Your task to perform on an android device: turn on javascript in the chrome app Image 0: 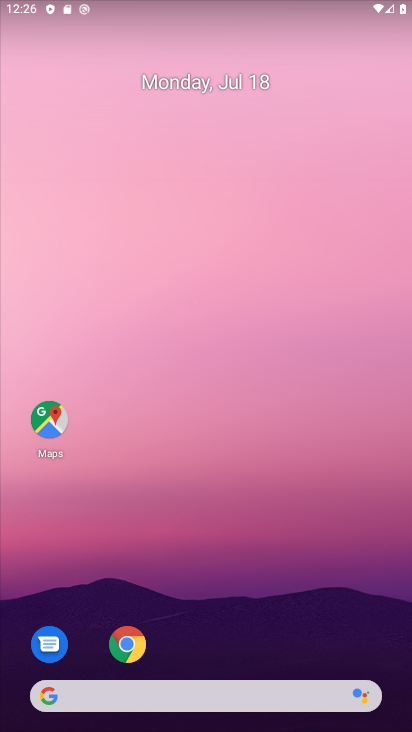
Step 0: click (109, 662)
Your task to perform on an android device: turn on javascript in the chrome app Image 1: 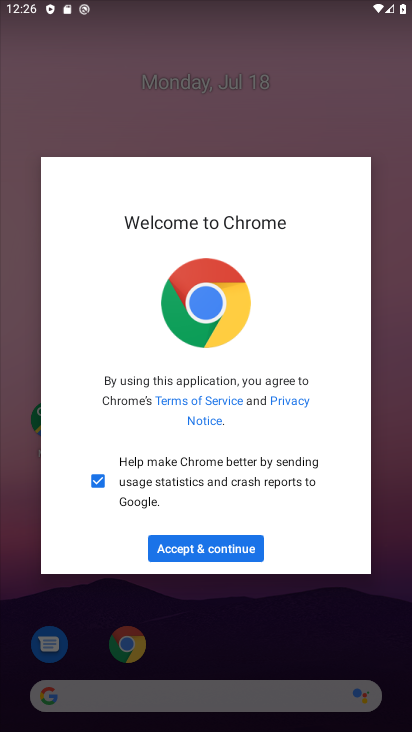
Step 1: click (192, 555)
Your task to perform on an android device: turn on javascript in the chrome app Image 2: 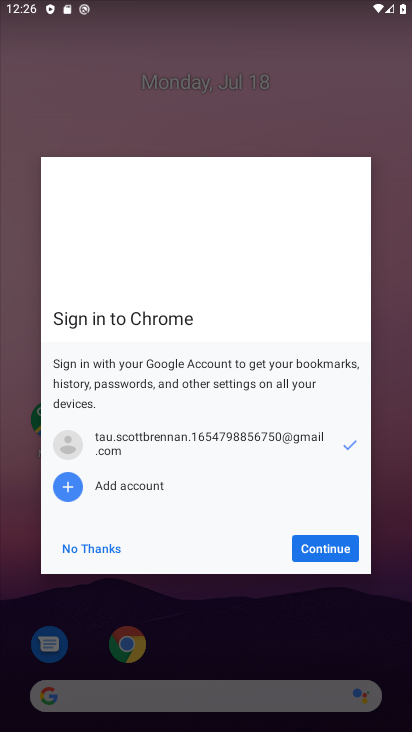
Step 2: click (312, 547)
Your task to perform on an android device: turn on javascript in the chrome app Image 3: 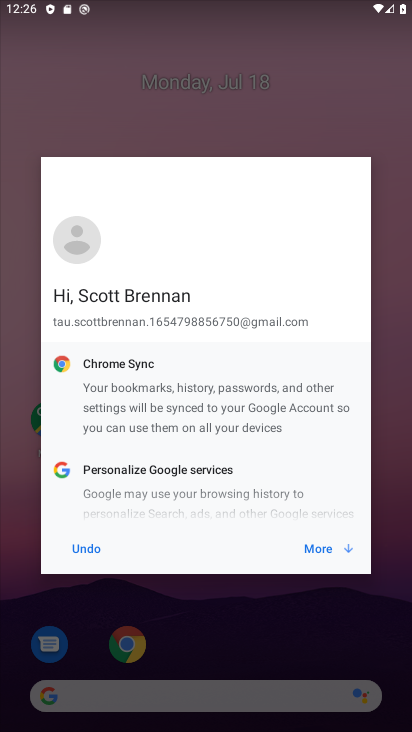
Step 3: click (312, 547)
Your task to perform on an android device: turn on javascript in the chrome app Image 4: 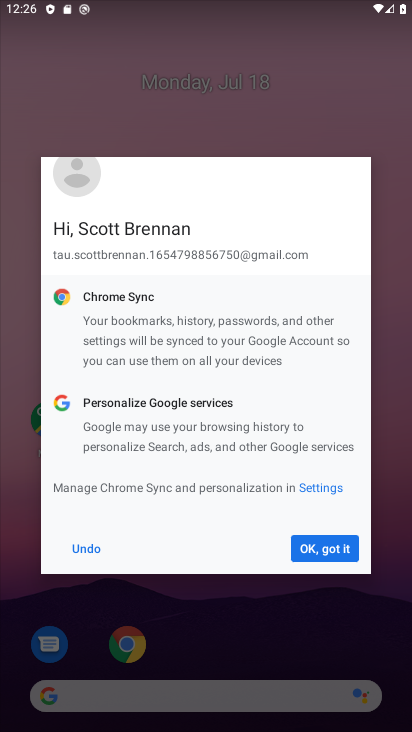
Step 4: click (312, 547)
Your task to perform on an android device: turn on javascript in the chrome app Image 5: 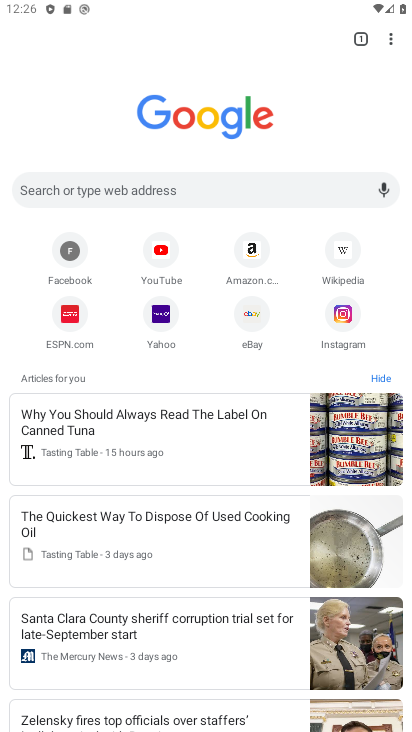
Step 5: drag from (391, 38) to (284, 320)
Your task to perform on an android device: turn on javascript in the chrome app Image 6: 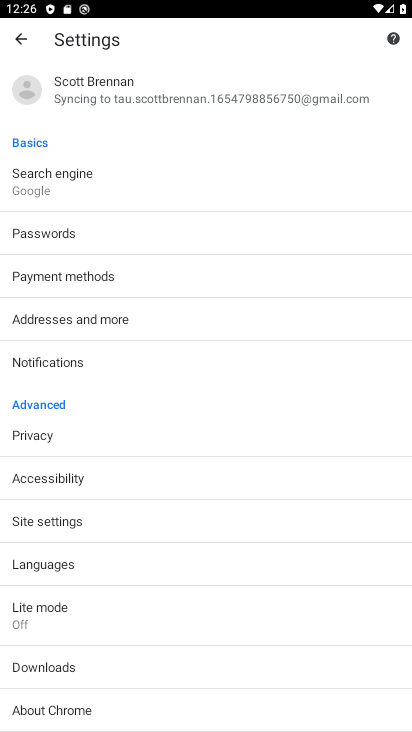
Step 6: drag from (74, 665) to (70, 526)
Your task to perform on an android device: turn on javascript in the chrome app Image 7: 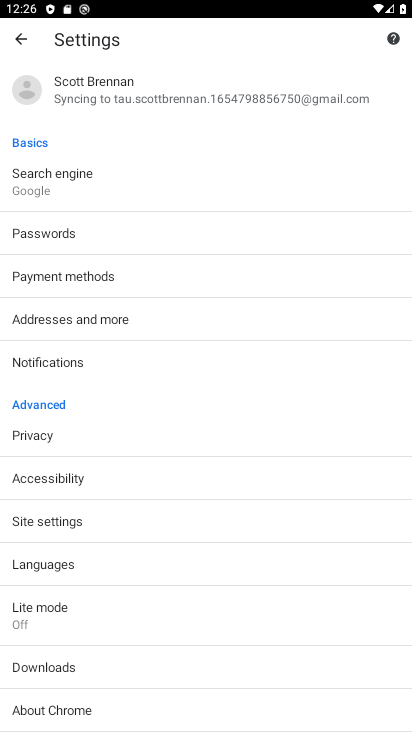
Step 7: click (104, 529)
Your task to perform on an android device: turn on javascript in the chrome app Image 8: 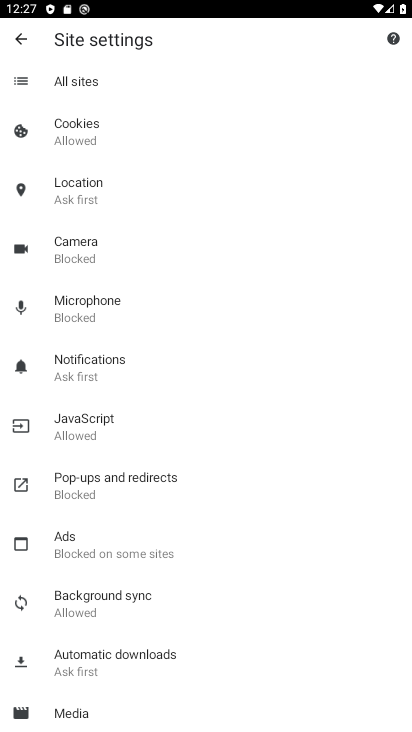
Step 8: click (82, 421)
Your task to perform on an android device: turn on javascript in the chrome app Image 9: 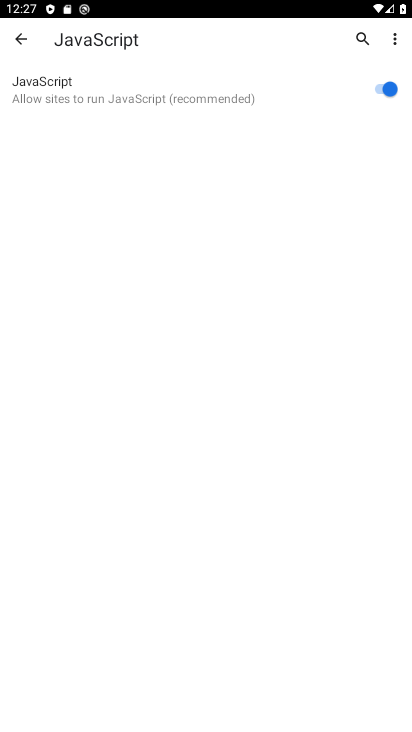
Step 9: task complete